Your task to perform on an android device: turn off sleep mode Image 0: 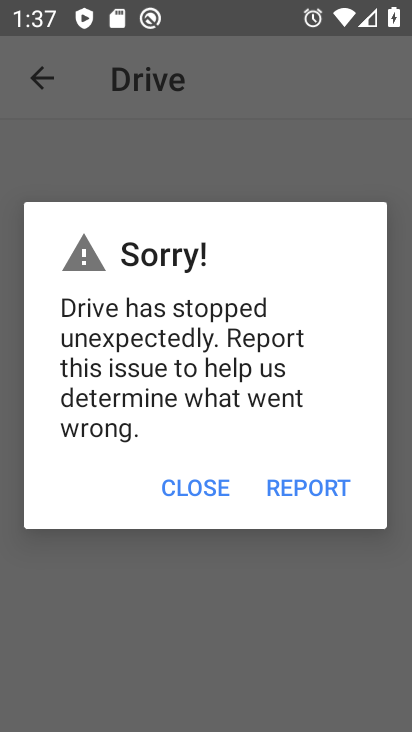
Step 0: press home button
Your task to perform on an android device: turn off sleep mode Image 1: 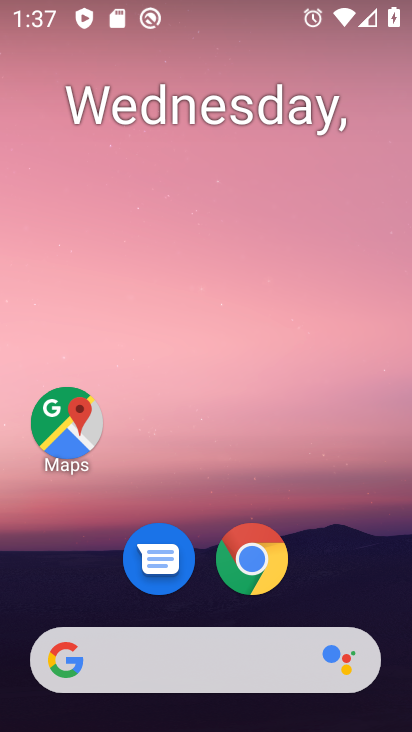
Step 1: drag from (383, 569) to (335, 52)
Your task to perform on an android device: turn off sleep mode Image 2: 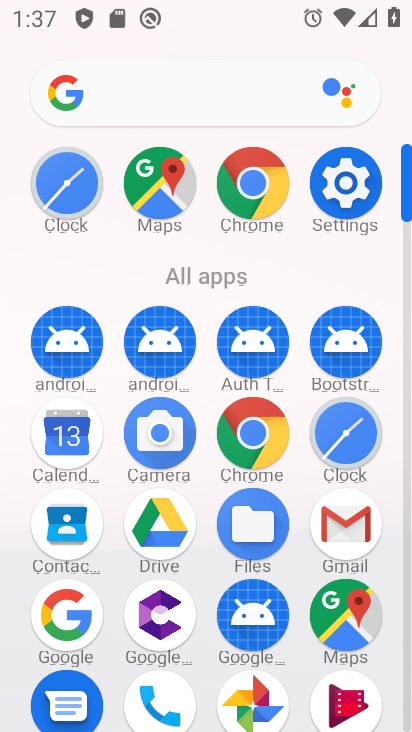
Step 2: click (352, 197)
Your task to perform on an android device: turn off sleep mode Image 3: 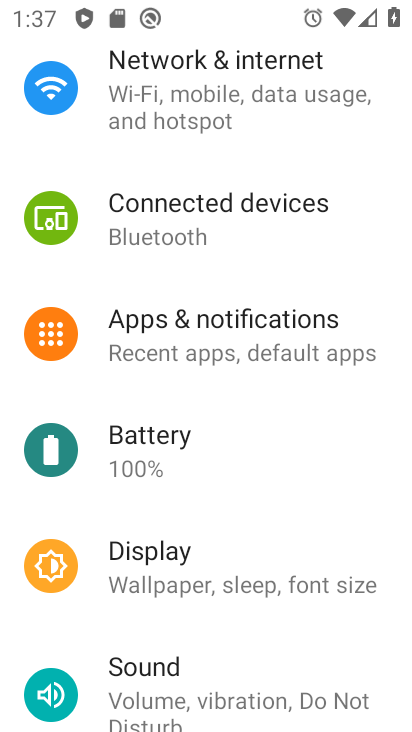
Step 3: click (294, 575)
Your task to perform on an android device: turn off sleep mode Image 4: 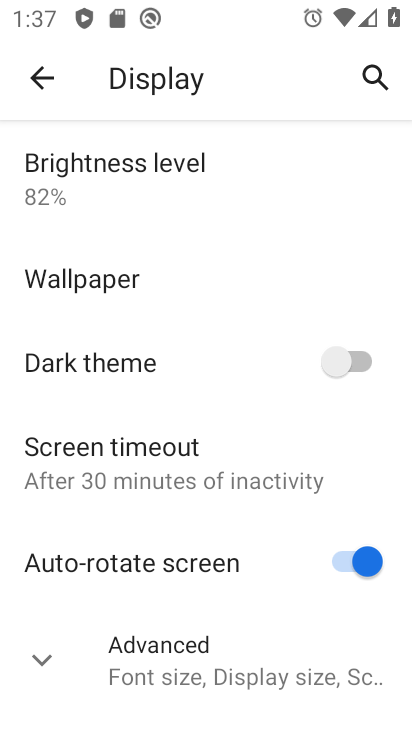
Step 4: click (287, 667)
Your task to perform on an android device: turn off sleep mode Image 5: 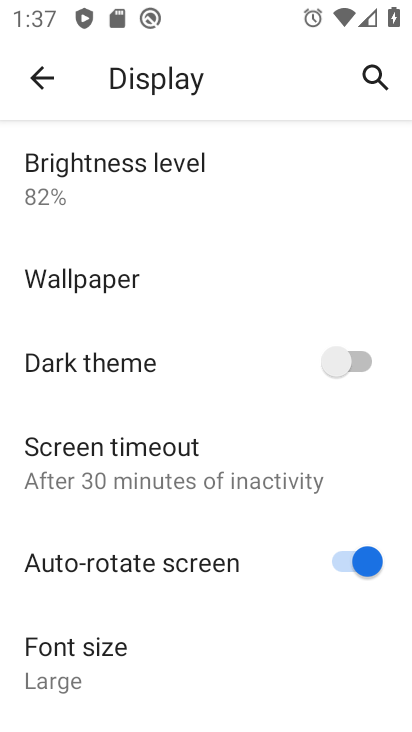
Step 5: task complete